Your task to perform on an android device: Search for "razer deathadder" on ebay.com, select the first entry, and add it to the cart. Image 0: 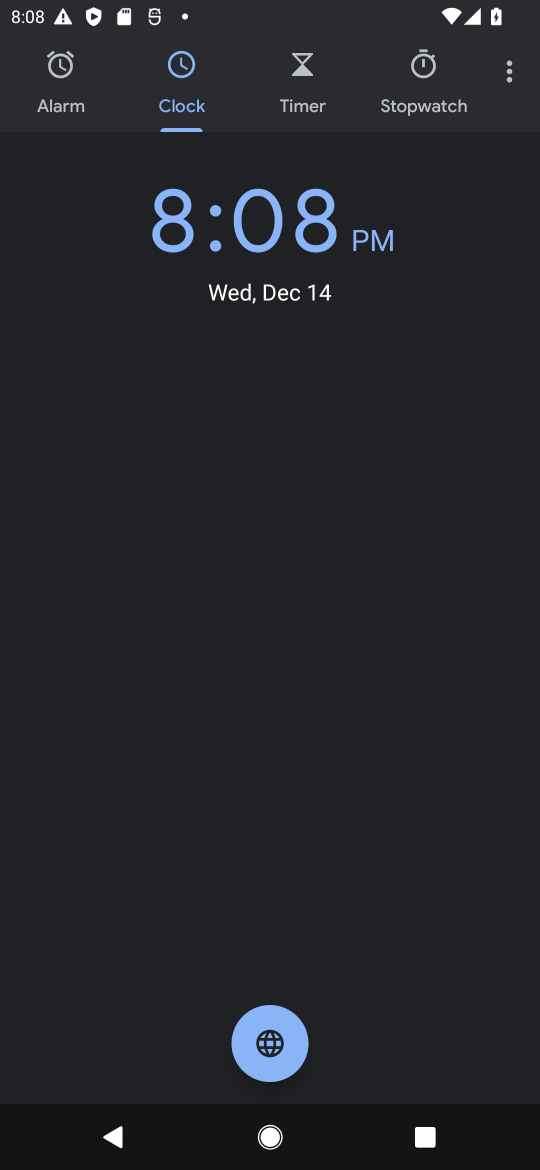
Step 0: press home button
Your task to perform on an android device: Search for "razer deathadder" on ebay.com, select the first entry, and add it to the cart. Image 1: 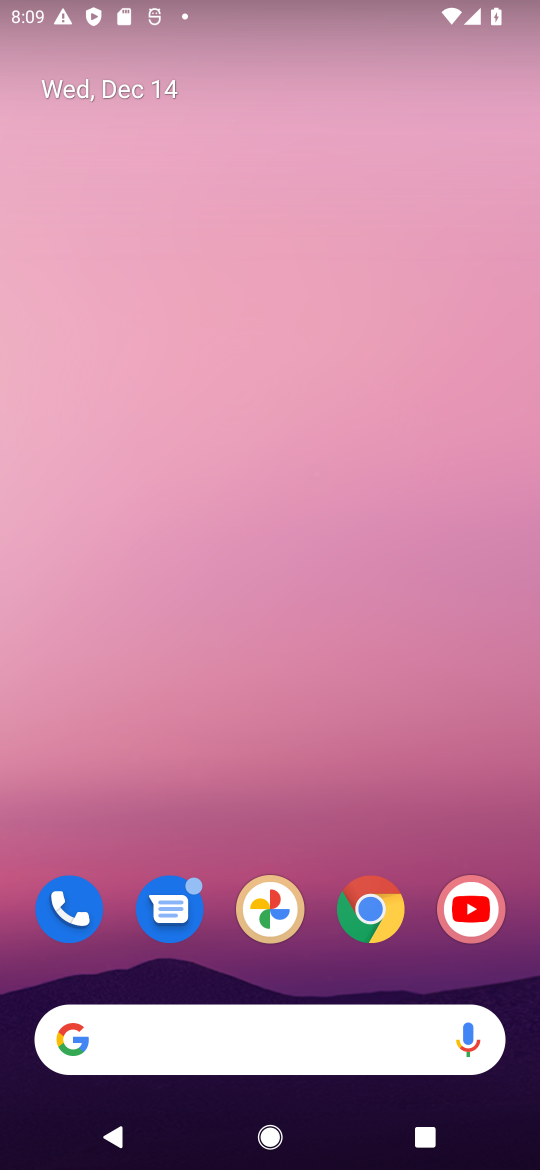
Step 1: click (370, 929)
Your task to perform on an android device: Search for "razer deathadder" on ebay.com, select the first entry, and add it to the cart. Image 2: 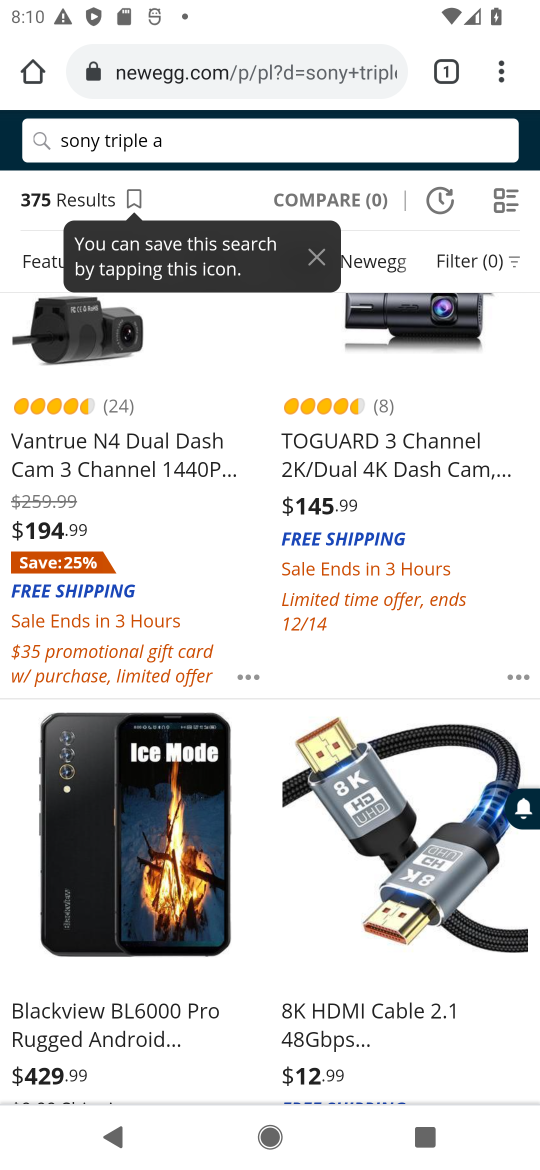
Step 2: click (241, 64)
Your task to perform on an android device: Search for "razer deathadder" on ebay.com, select the first entry, and add it to the cart. Image 3: 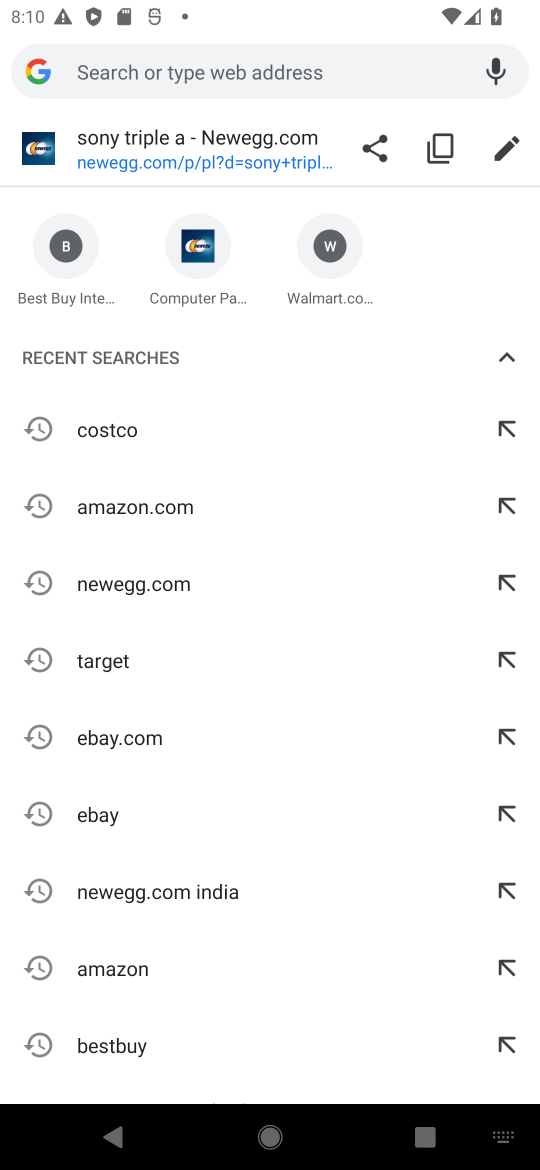
Step 3: type "ebay.com"
Your task to perform on an android device: Search for "razer deathadder" on ebay.com, select the first entry, and add it to the cart. Image 4: 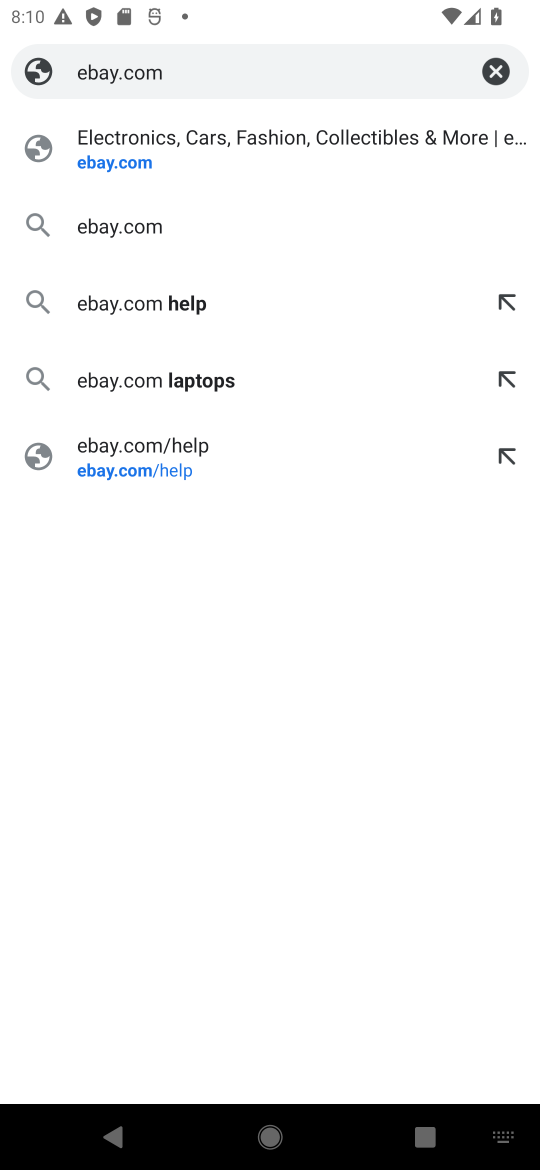
Step 4: click (152, 143)
Your task to perform on an android device: Search for "razer deathadder" on ebay.com, select the first entry, and add it to the cart. Image 5: 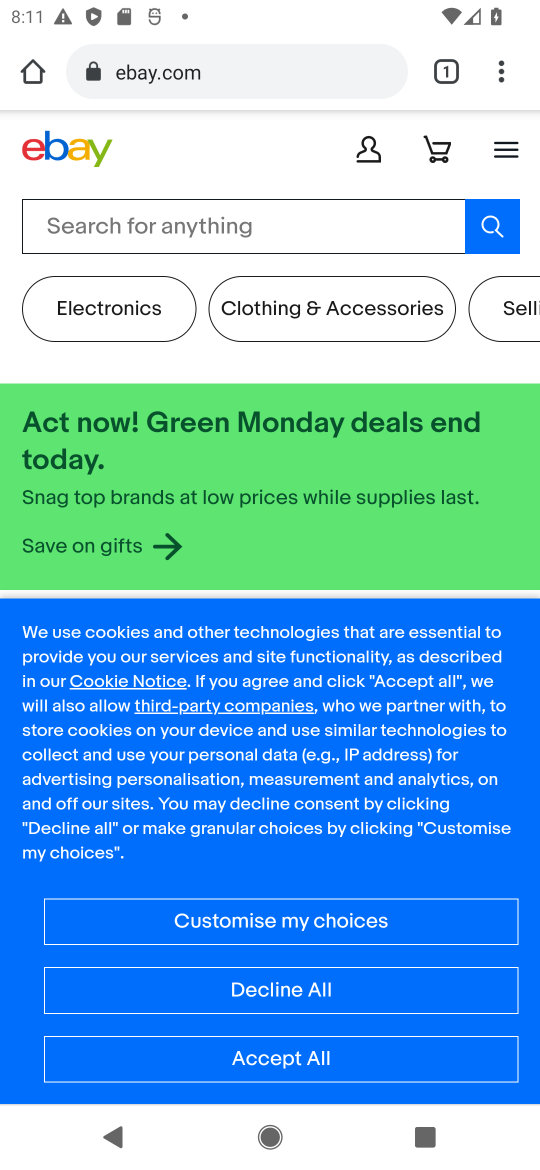
Step 5: click (379, 223)
Your task to perform on an android device: Search for "razer deathadder" on ebay.com, select the first entry, and add it to the cart. Image 6: 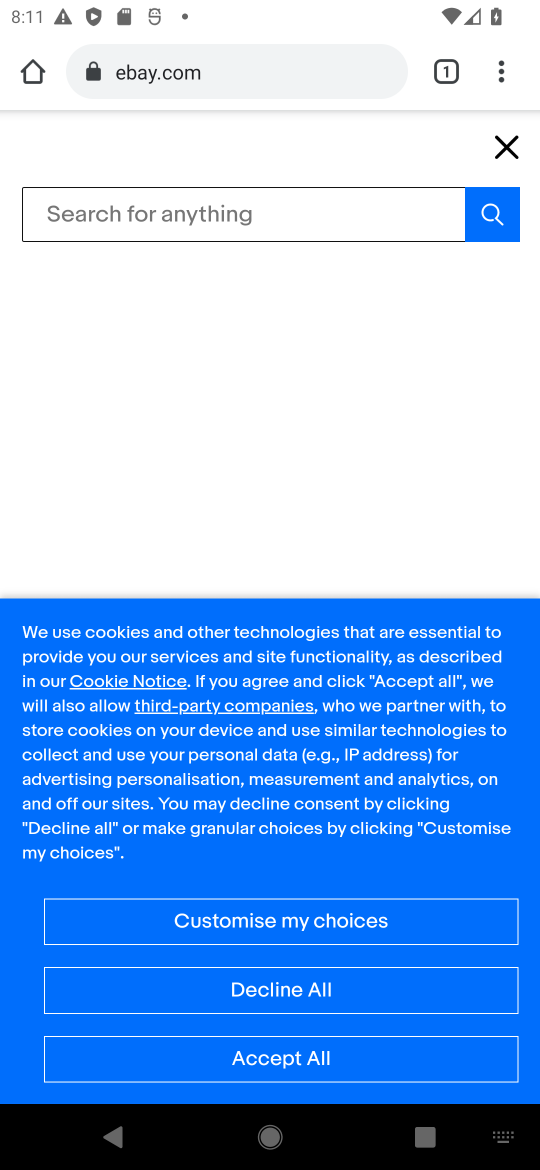
Step 6: type "razer deathadder"
Your task to perform on an android device: Search for "razer deathadder" on ebay.com, select the first entry, and add it to the cart. Image 7: 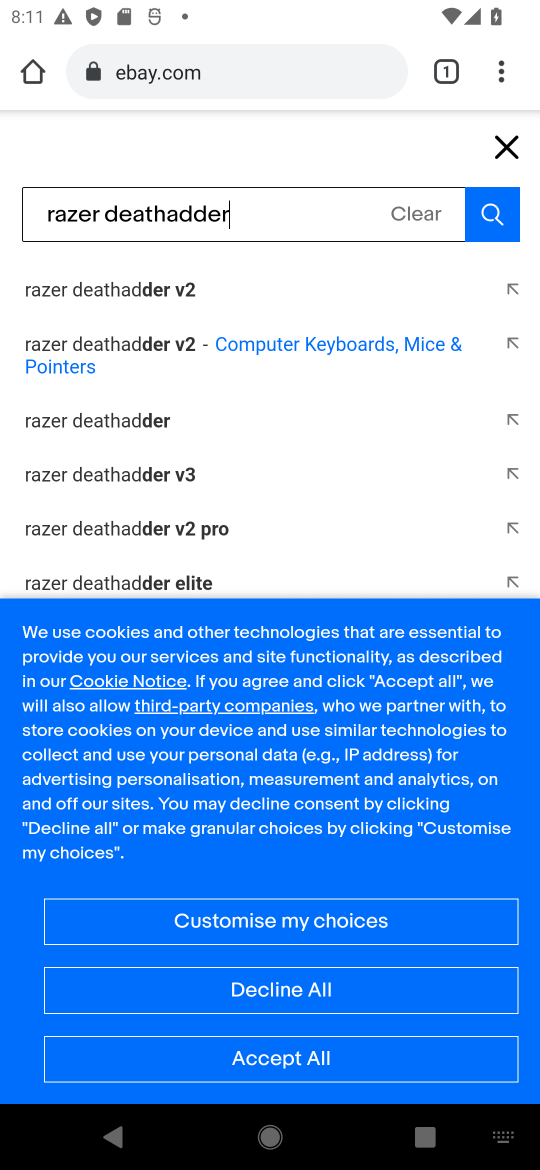
Step 7: click (142, 425)
Your task to perform on an android device: Search for "razer deathadder" on ebay.com, select the first entry, and add it to the cart. Image 8: 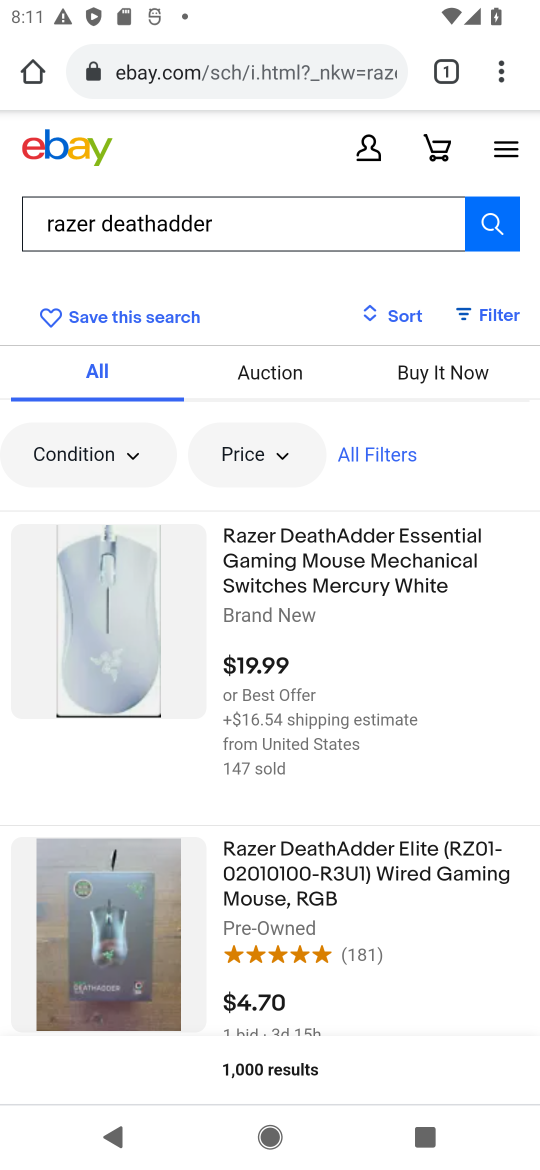
Step 8: click (111, 566)
Your task to perform on an android device: Search for "razer deathadder" on ebay.com, select the first entry, and add it to the cart. Image 9: 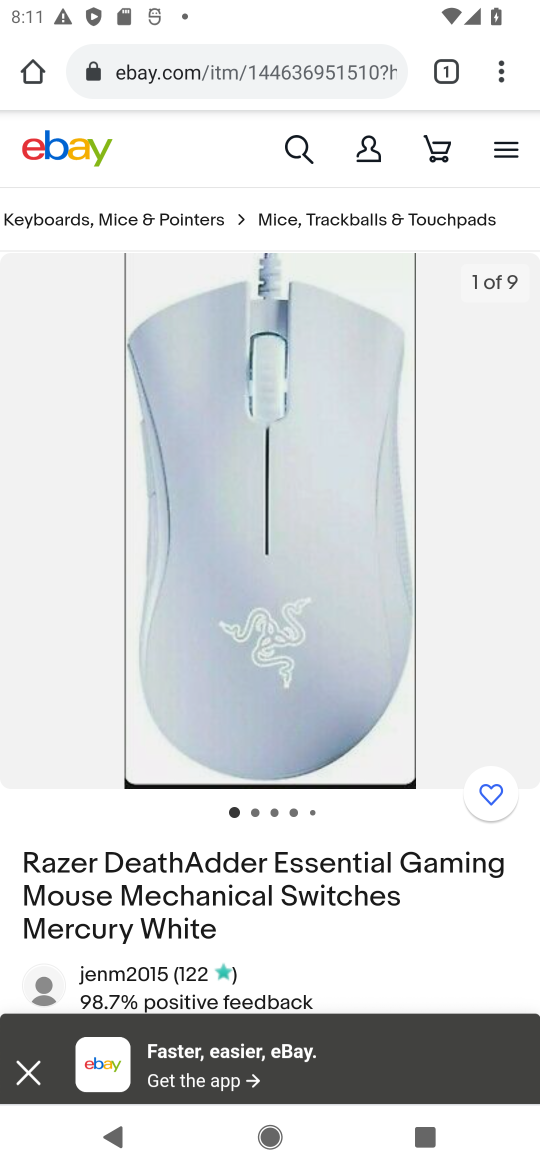
Step 9: drag from (463, 986) to (491, 502)
Your task to perform on an android device: Search for "razer deathadder" on ebay.com, select the first entry, and add it to the cart. Image 10: 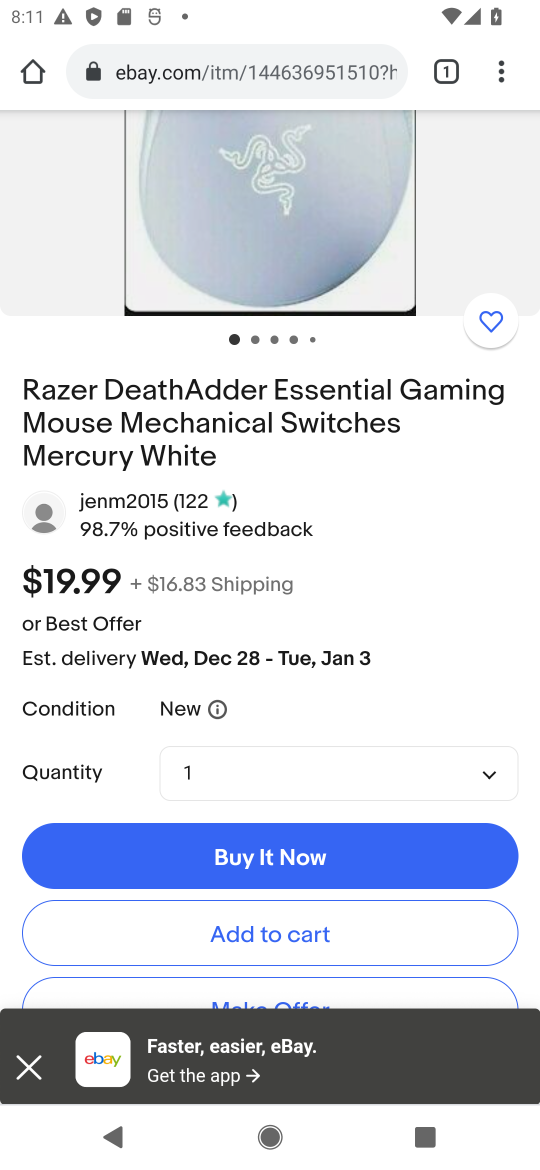
Step 10: click (284, 928)
Your task to perform on an android device: Search for "razer deathadder" on ebay.com, select the first entry, and add it to the cart. Image 11: 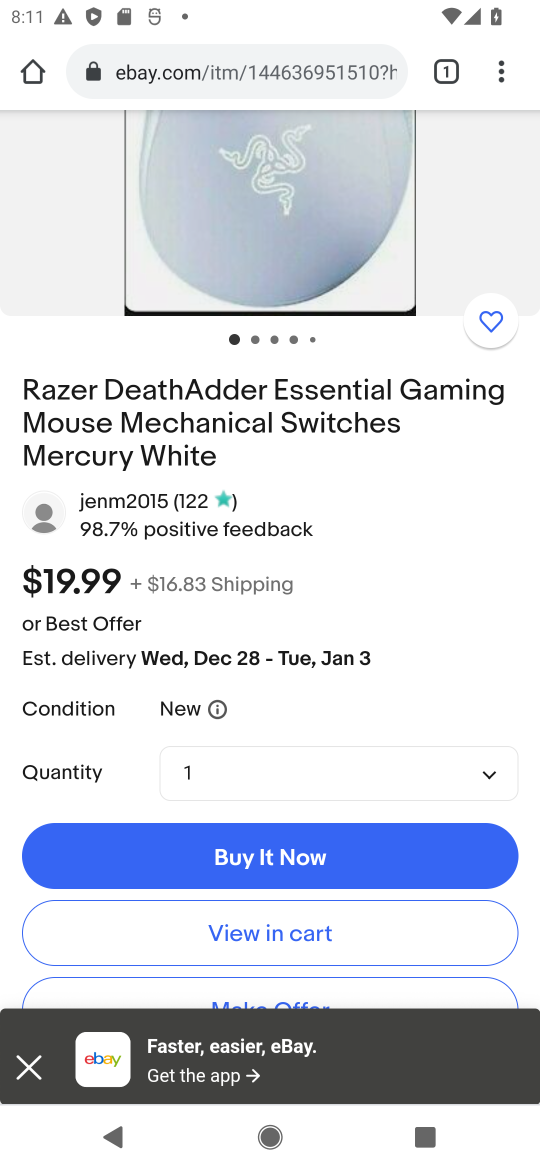
Step 11: click (284, 928)
Your task to perform on an android device: Search for "razer deathadder" on ebay.com, select the first entry, and add it to the cart. Image 12: 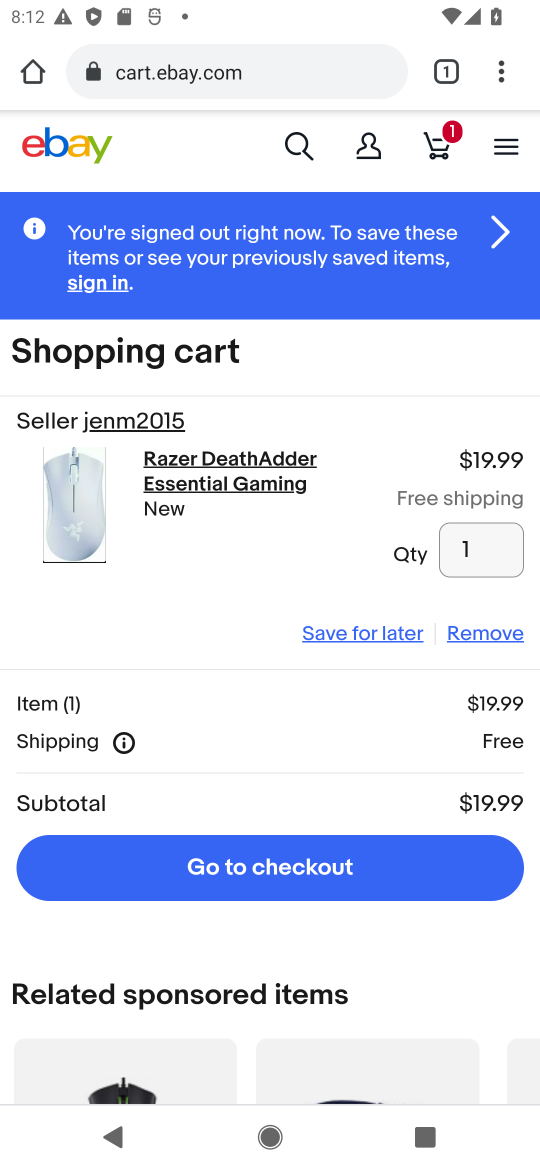
Step 12: task complete